Your task to perform on an android device: change notification settings in the gmail app Image 0: 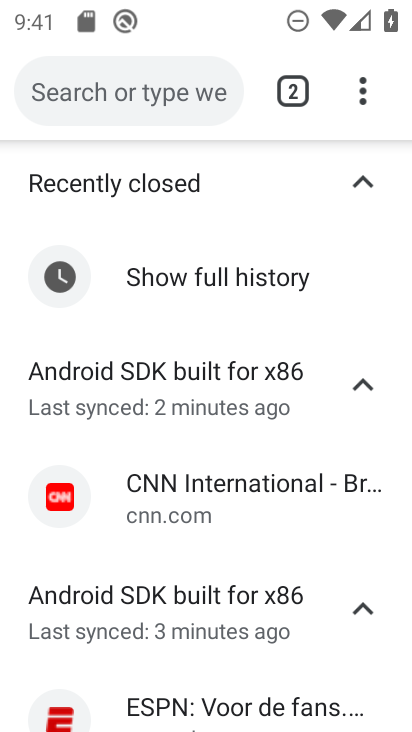
Step 0: press home button
Your task to perform on an android device: change notification settings in the gmail app Image 1: 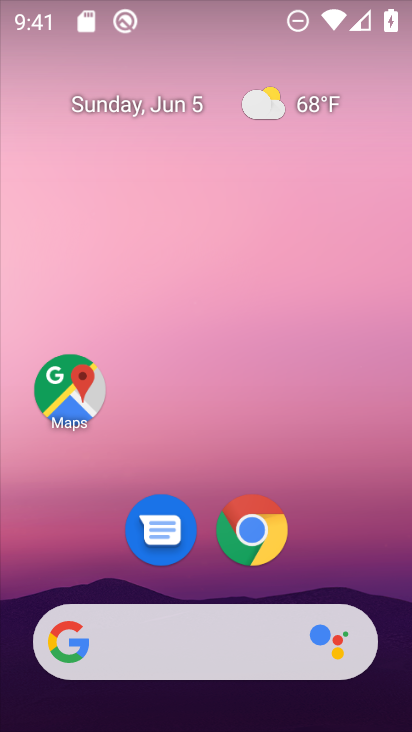
Step 1: drag from (395, 631) to (324, 77)
Your task to perform on an android device: change notification settings in the gmail app Image 2: 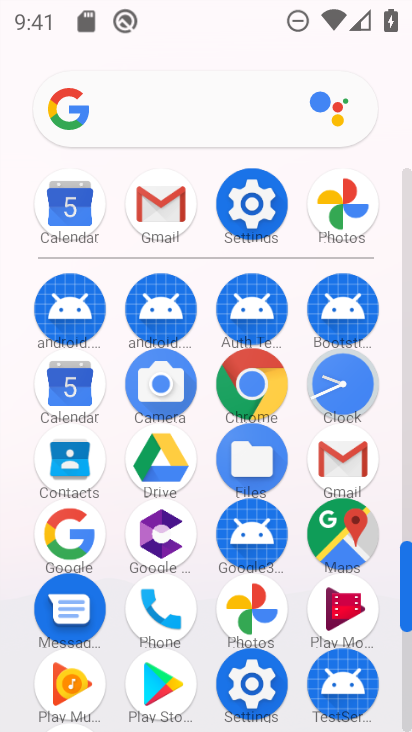
Step 2: click (340, 459)
Your task to perform on an android device: change notification settings in the gmail app Image 3: 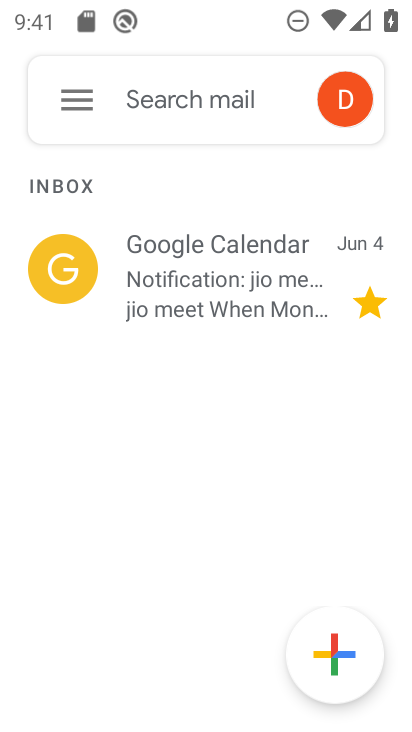
Step 3: click (65, 98)
Your task to perform on an android device: change notification settings in the gmail app Image 4: 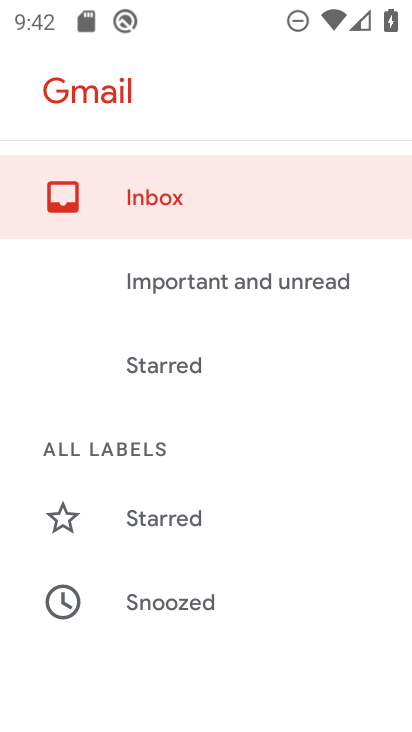
Step 4: drag from (247, 639) to (221, 204)
Your task to perform on an android device: change notification settings in the gmail app Image 5: 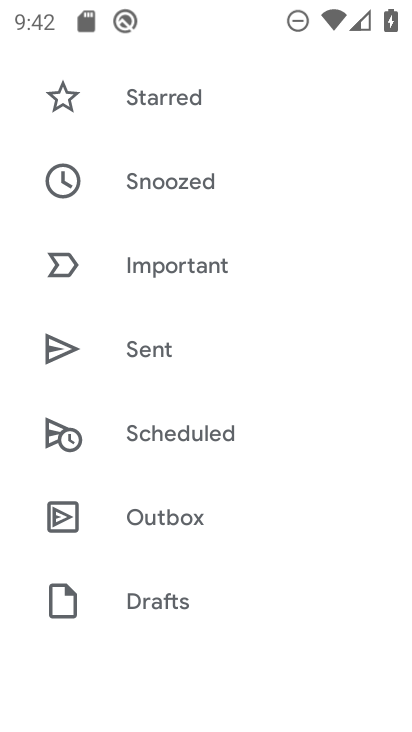
Step 5: drag from (223, 594) to (231, 222)
Your task to perform on an android device: change notification settings in the gmail app Image 6: 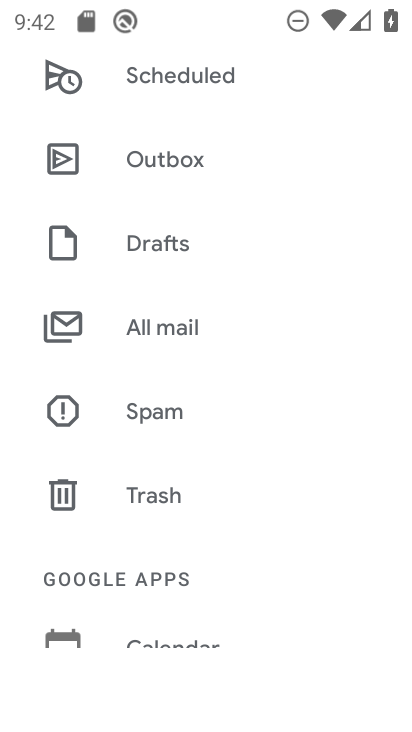
Step 6: drag from (224, 620) to (229, 192)
Your task to perform on an android device: change notification settings in the gmail app Image 7: 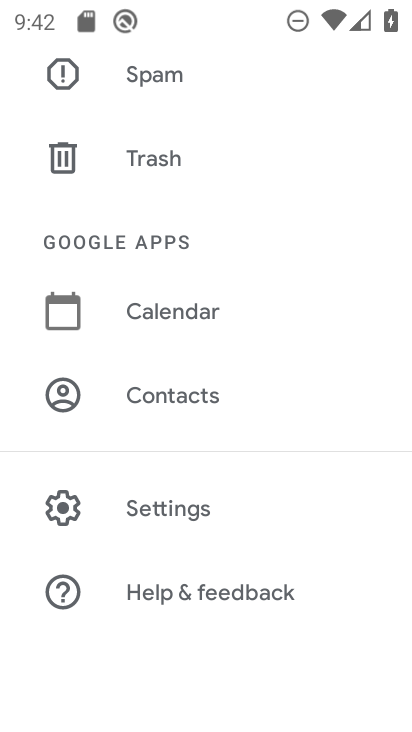
Step 7: click (173, 505)
Your task to perform on an android device: change notification settings in the gmail app Image 8: 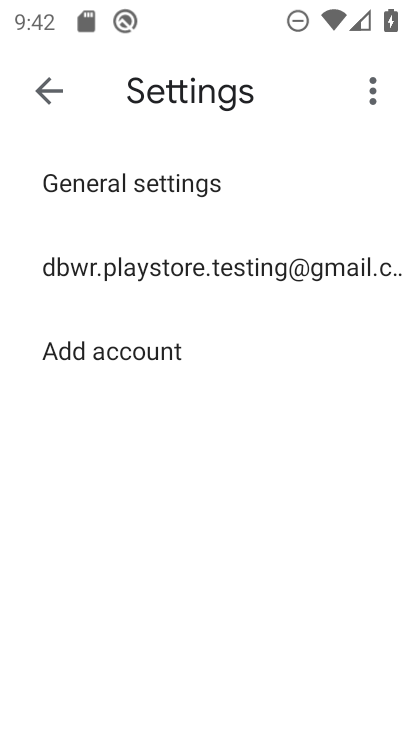
Step 8: click (167, 274)
Your task to perform on an android device: change notification settings in the gmail app Image 9: 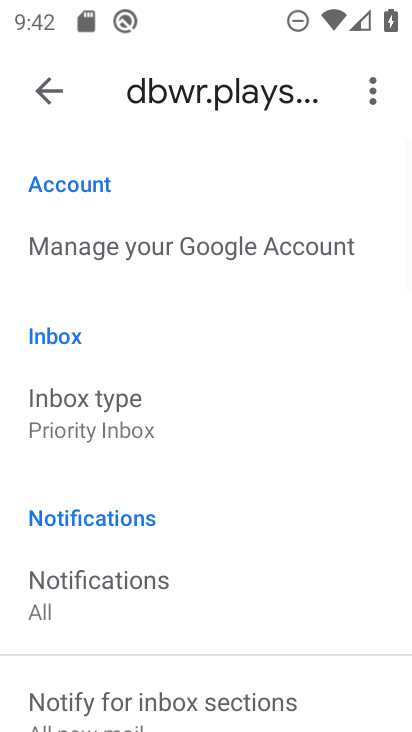
Step 9: drag from (206, 619) to (199, 255)
Your task to perform on an android device: change notification settings in the gmail app Image 10: 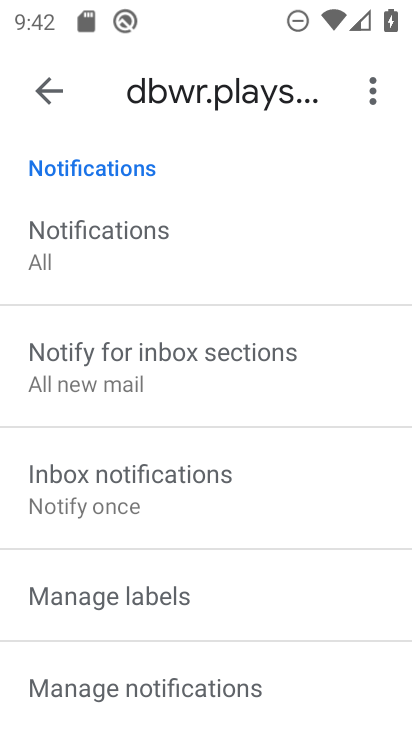
Step 10: drag from (127, 662) to (215, 284)
Your task to perform on an android device: change notification settings in the gmail app Image 11: 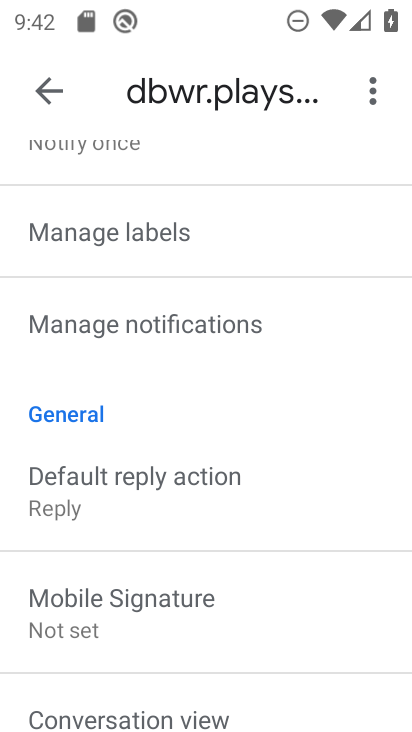
Step 11: click (132, 320)
Your task to perform on an android device: change notification settings in the gmail app Image 12: 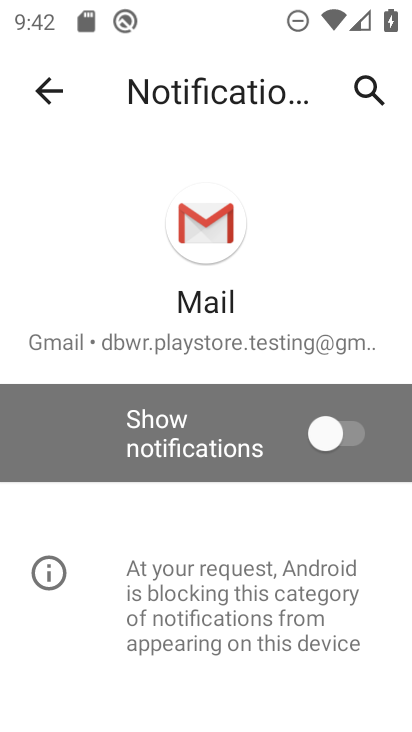
Step 12: click (358, 438)
Your task to perform on an android device: change notification settings in the gmail app Image 13: 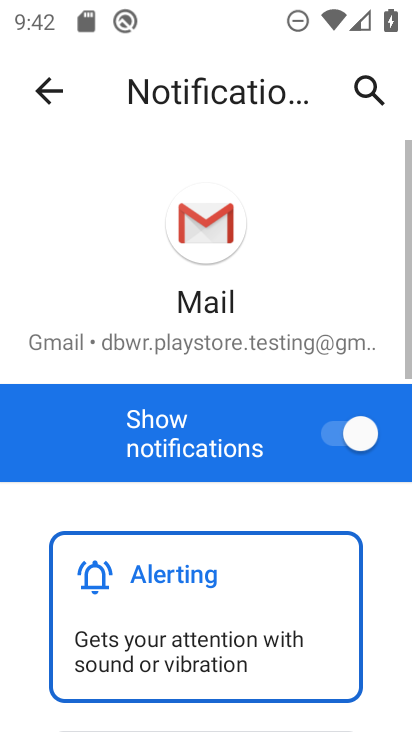
Step 13: task complete